Your task to perform on an android device: What's on my calendar today? Image 0: 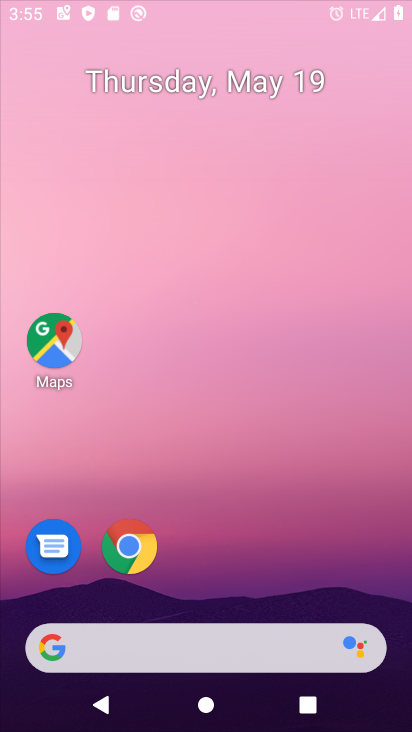
Step 0: press home button
Your task to perform on an android device: What's on my calendar today? Image 1: 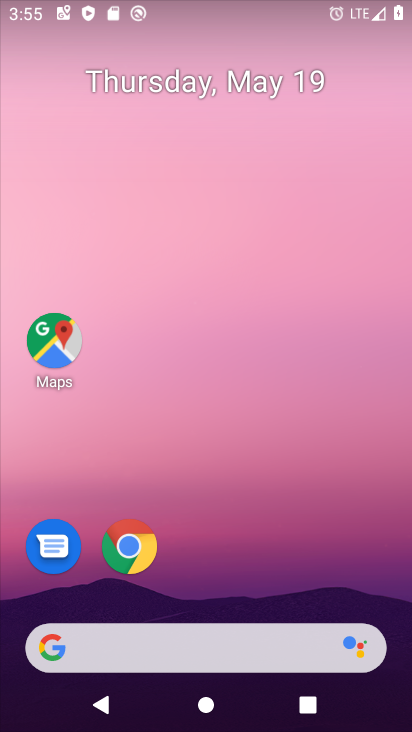
Step 1: drag from (218, 579) to (285, 275)
Your task to perform on an android device: What's on my calendar today? Image 2: 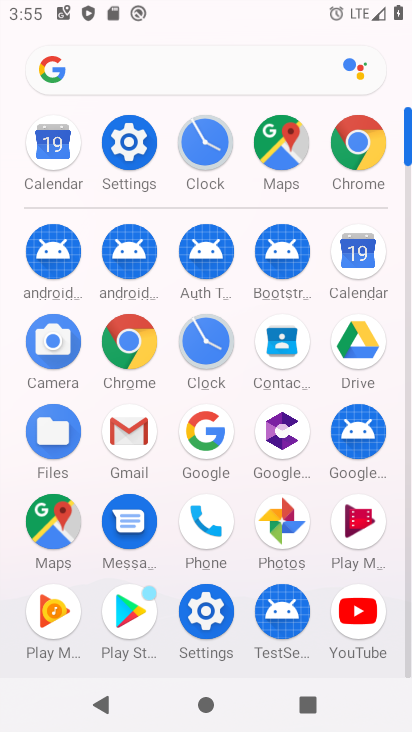
Step 2: click (359, 248)
Your task to perform on an android device: What's on my calendar today? Image 3: 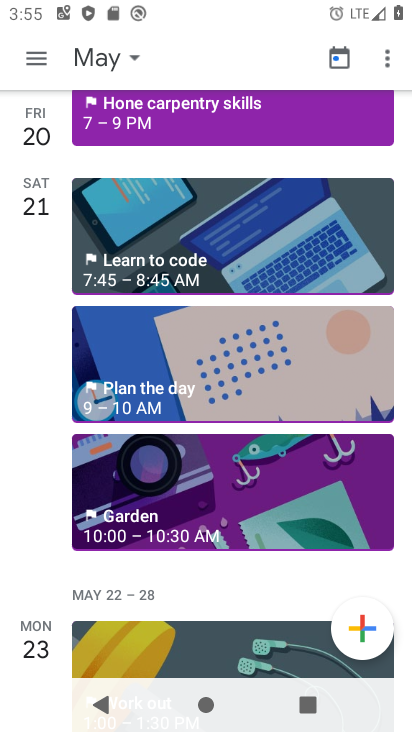
Step 3: click (35, 156)
Your task to perform on an android device: What's on my calendar today? Image 4: 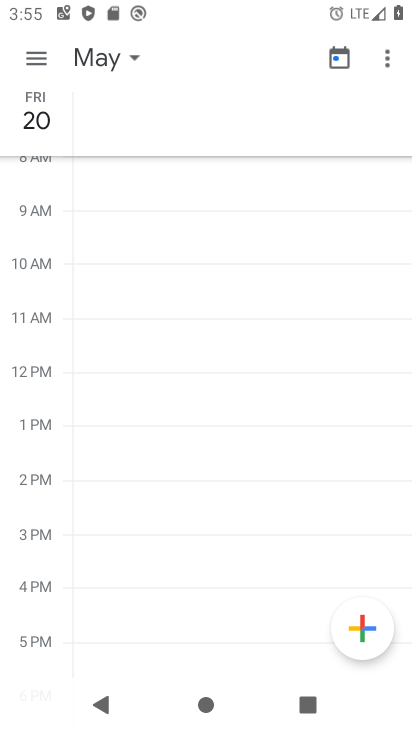
Step 4: task complete